Your task to perform on an android device: change the clock display to digital Image 0: 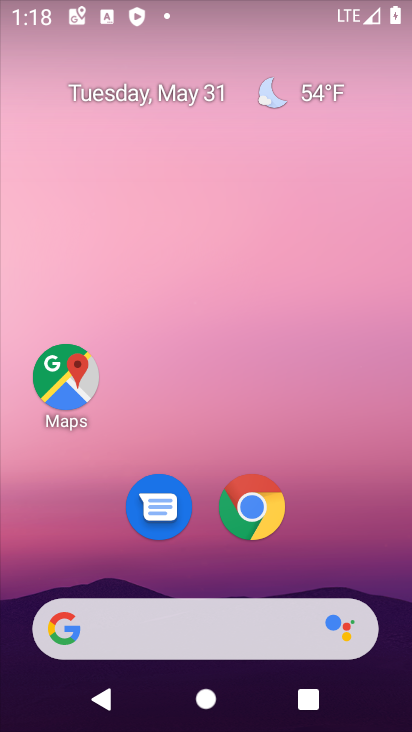
Step 0: drag from (392, 627) to (237, 22)
Your task to perform on an android device: change the clock display to digital Image 1: 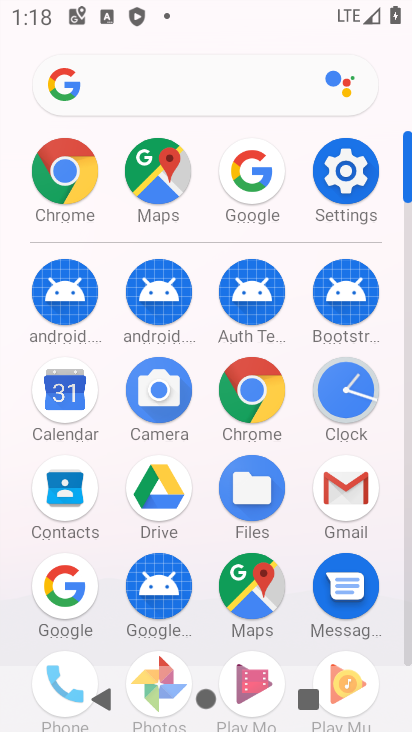
Step 1: click (349, 392)
Your task to perform on an android device: change the clock display to digital Image 2: 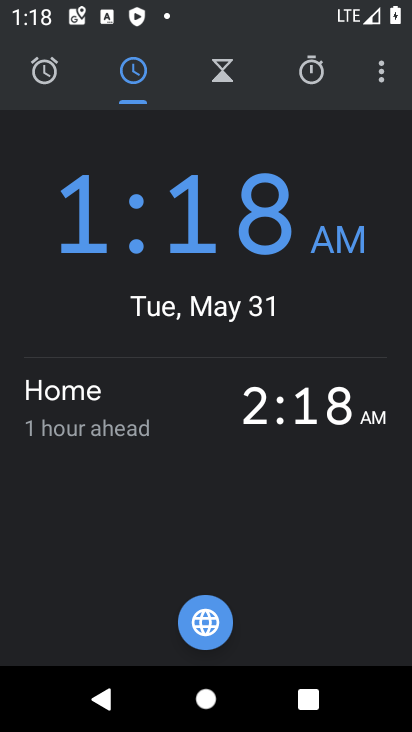
Step 2: click (390, 67)
Your task to perform on an android device: change the clock display to digital Image 3: 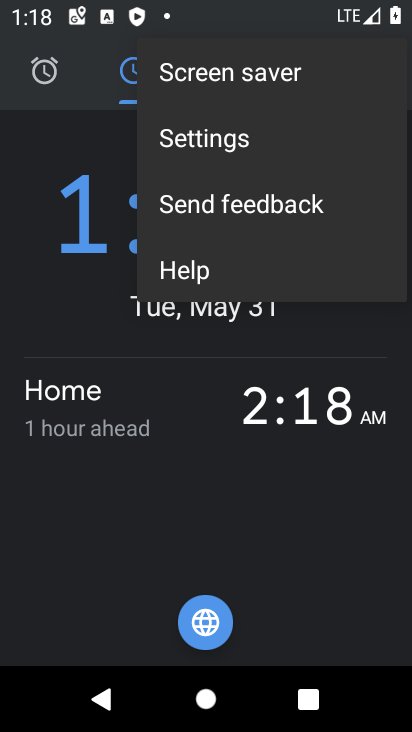
Step 3: click (264, 139)
Your task to perform on an android device: change the clock display to digital Image 4: 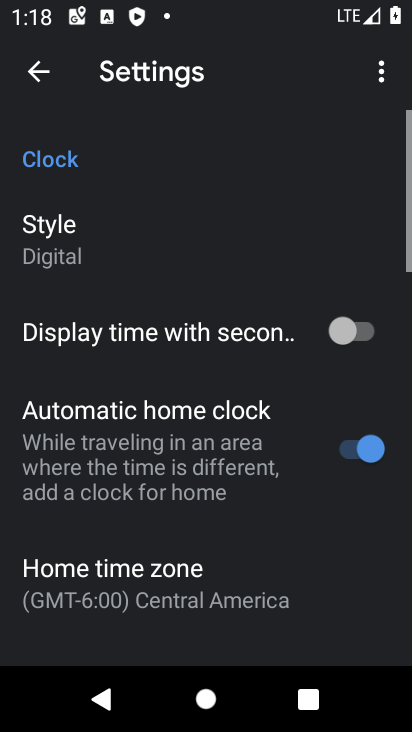
Step 4: click (62, 243)
Your task to perform on an android device: change the clock display to digital Image 5: 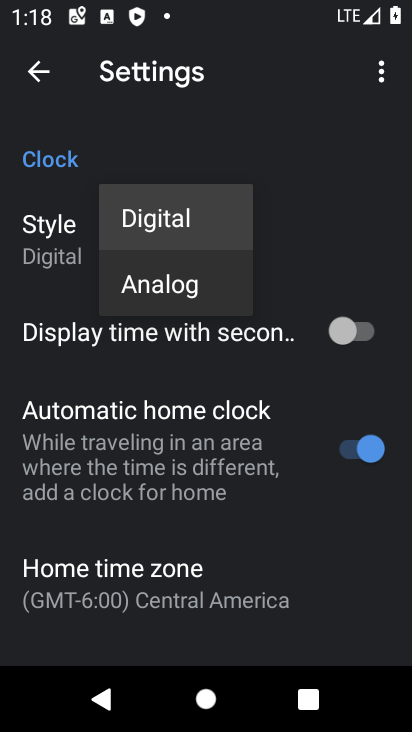
Step 5: click (181, 224)
Your task to perform on an android device: change the clock display to digital Image 6: 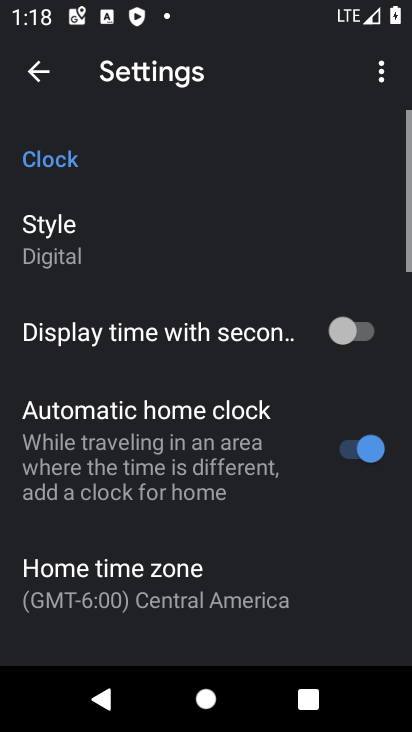
Step 6: task complete